Your task to perform on an android device: delete the emails in spam in the gmail app Image 0: 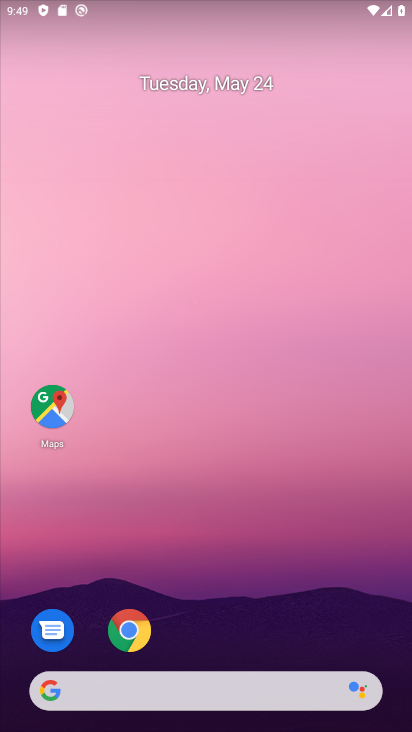
Step 0: drag from (232, 651) to (312, 132)
Your task to perform on an android device: delete the emails in spam in the gmail app Image 1: 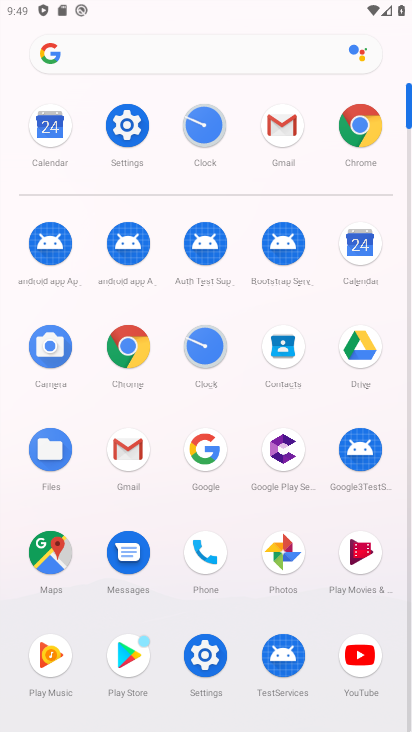
Step 1: click (128, 442)
Your task to perform on an android device: delete the emails in spam in the gmail app Image 2: 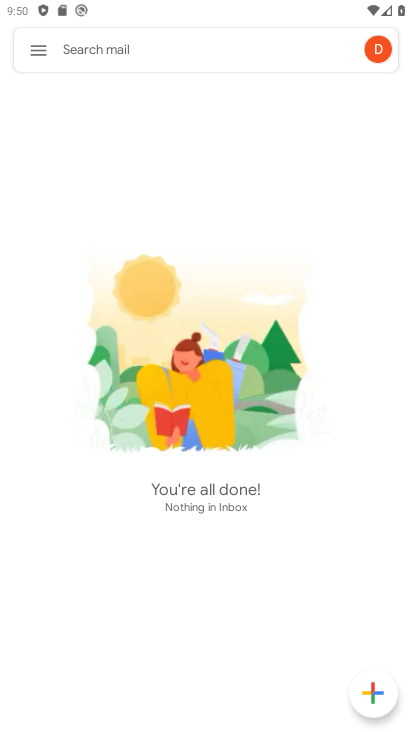
Step 2: click (34, 46)
Your task to perform on an android device: delete the emails in spam in the gmail app Image 3: 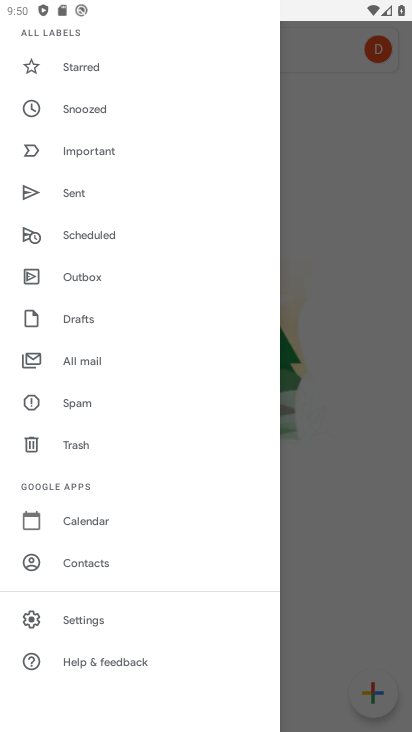
Step 3: click (80, 401)
Your task to perform on an android device: delete the emails in spam in the gmail app Image 4: 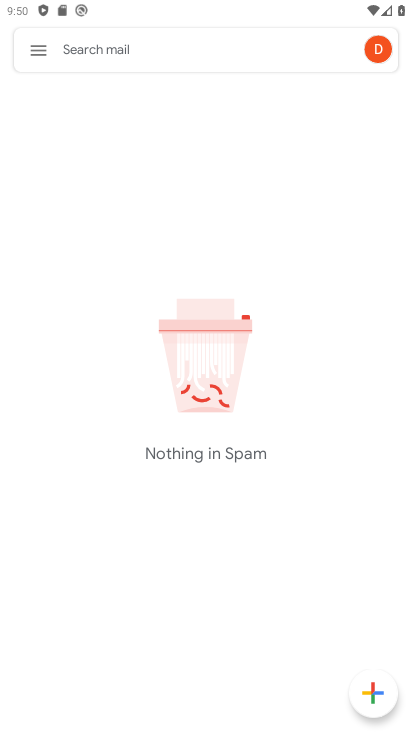
Step 4: task complete